Your task to perform on an android device: Open the stopwatch Image 0: 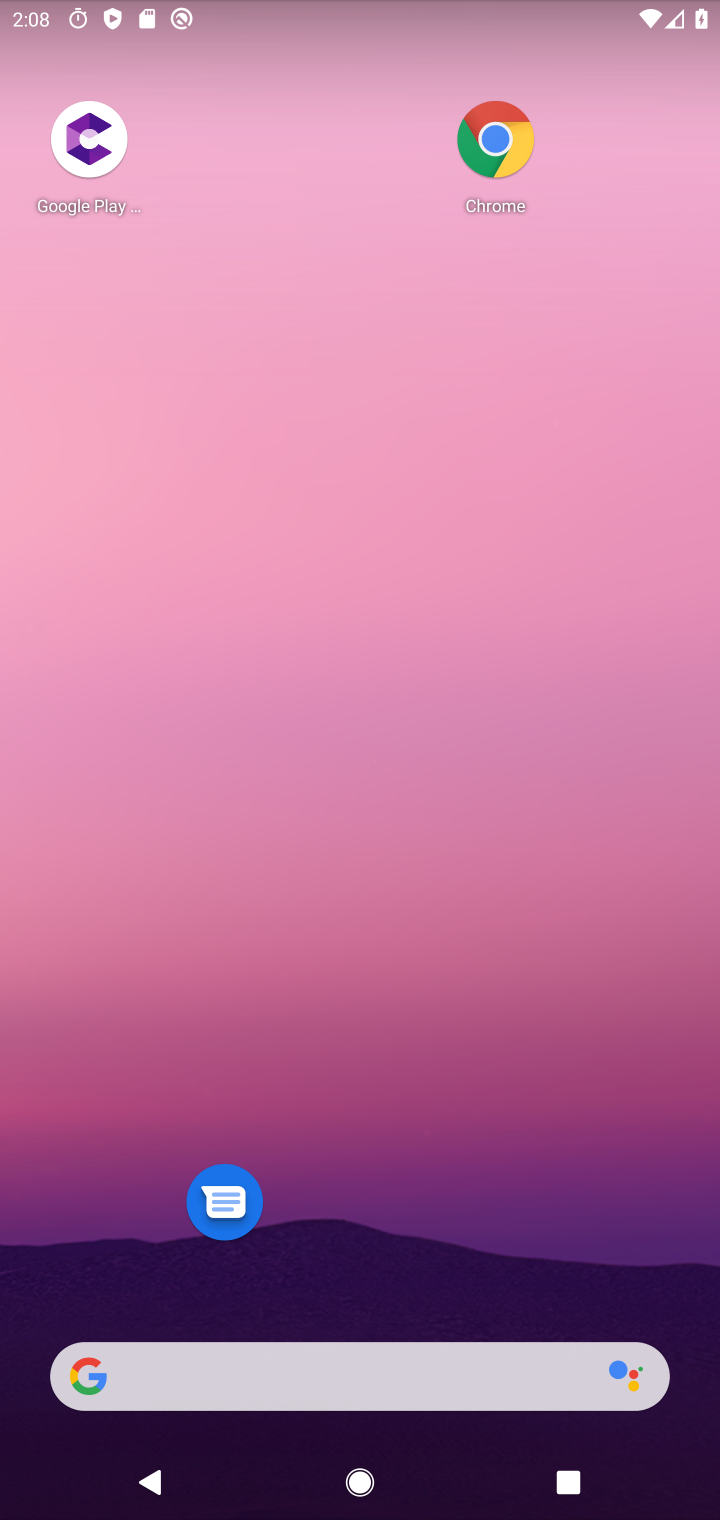
Step 0: drag from (197, 1366) to (489, 14)
Your task to perform on an android device: Open the stopwatch Image 1: 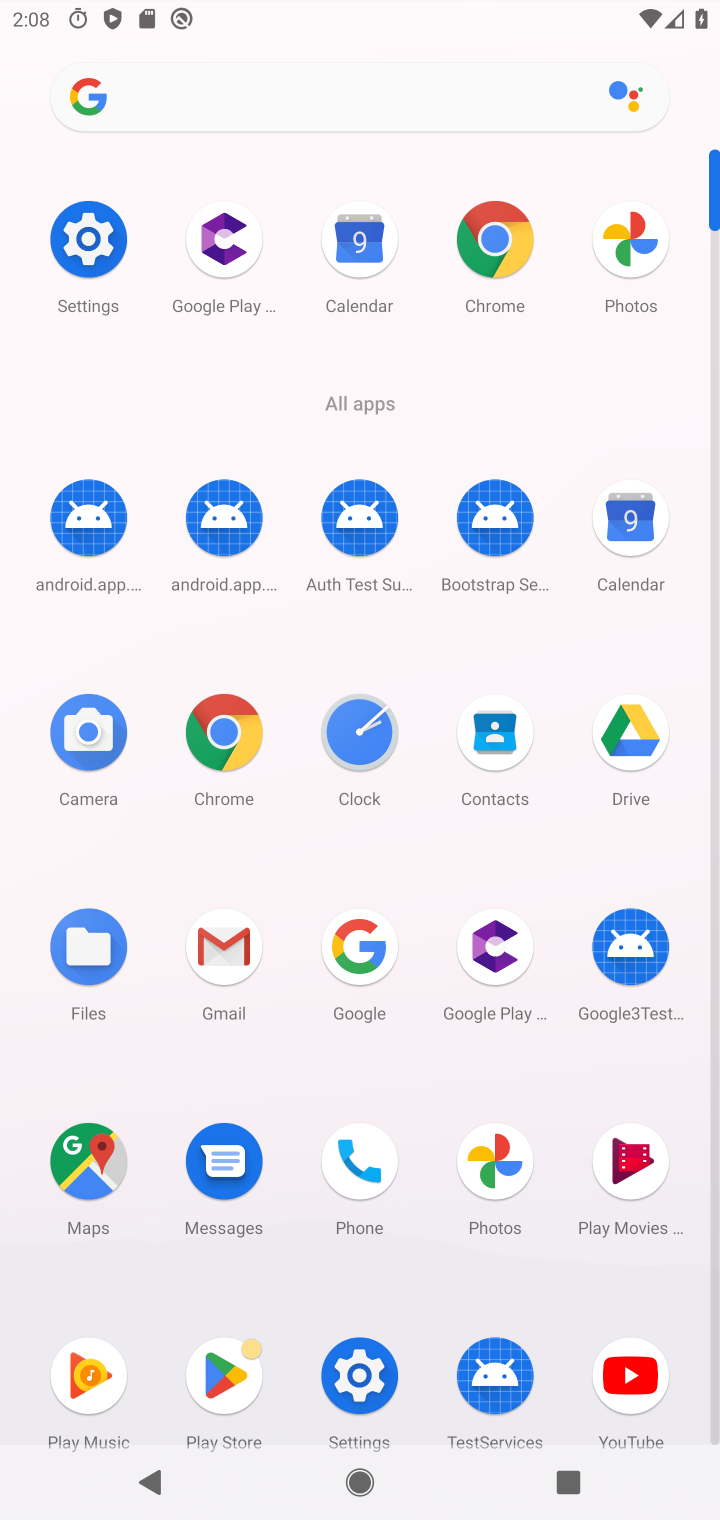
Step 1: click (371, 702)
Your task to perform on an android device: Open the stopwatch Image 2: 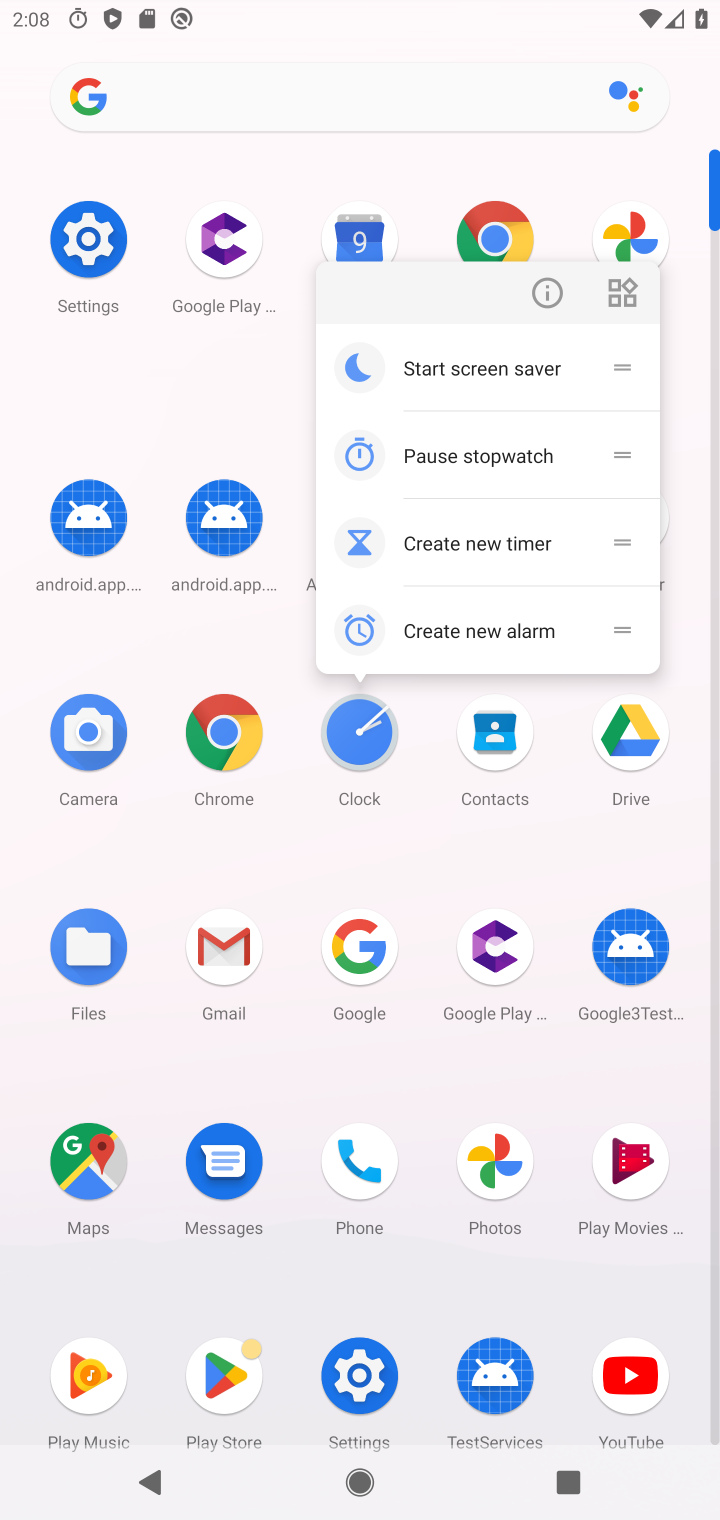
Step 2: click (354, 726)
Your task to perform on an android device: Open the stopwatch Image 3: 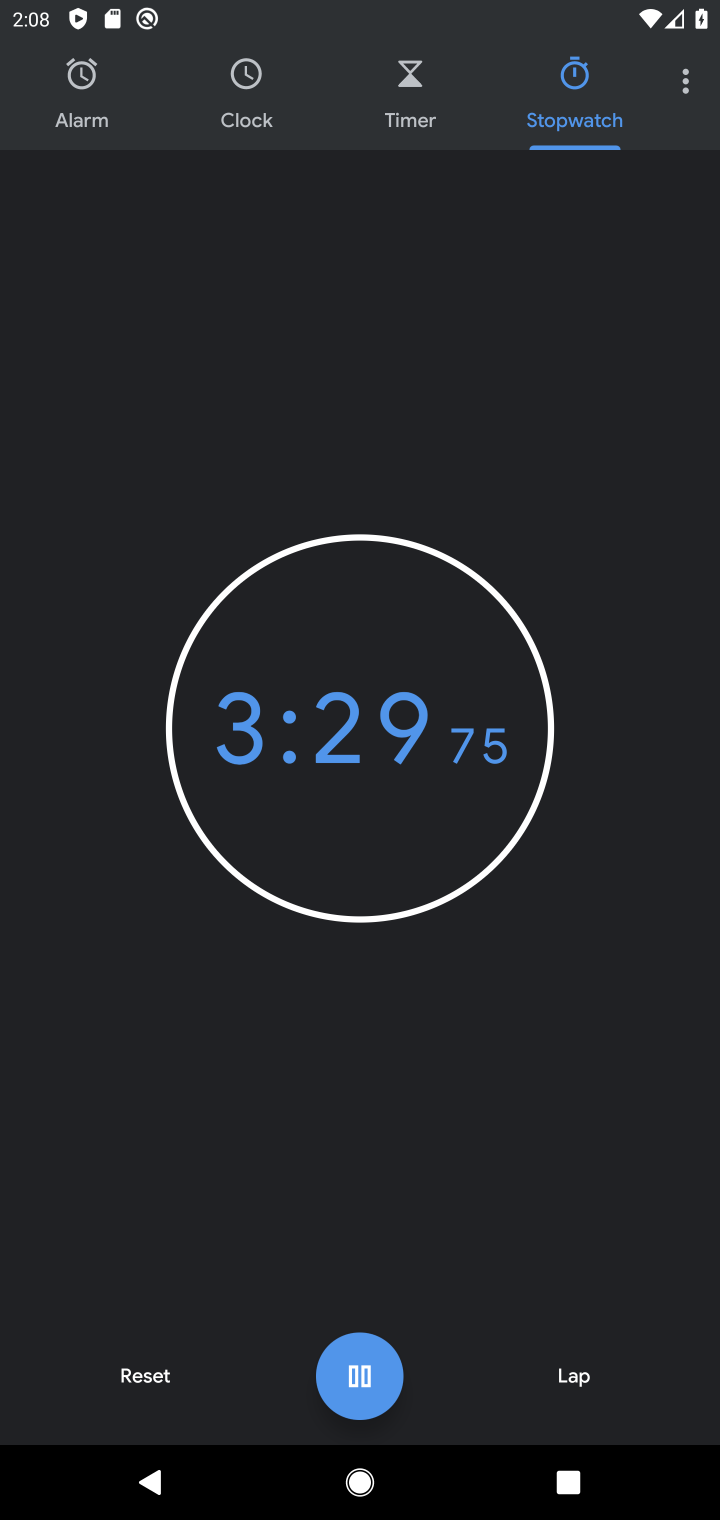
Step 3: task complete